Your task to perform on an android device: turn off smart reply in the gmail app Image 0: 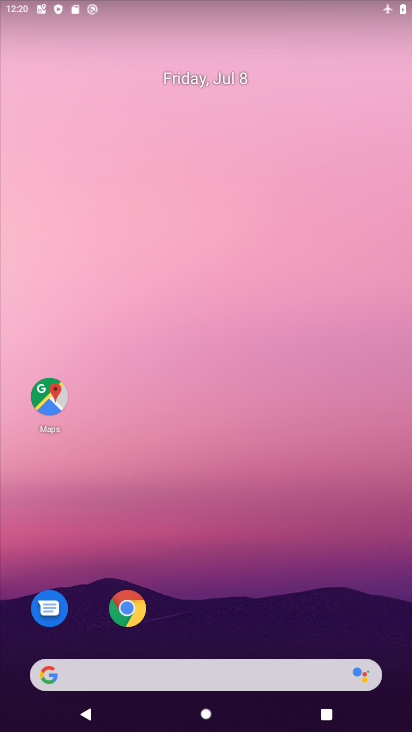
Step 0: drag from (334, 619) to (332, 13)
Your task to perform on an android device: turn off smart reply in the gmail app Image 1: 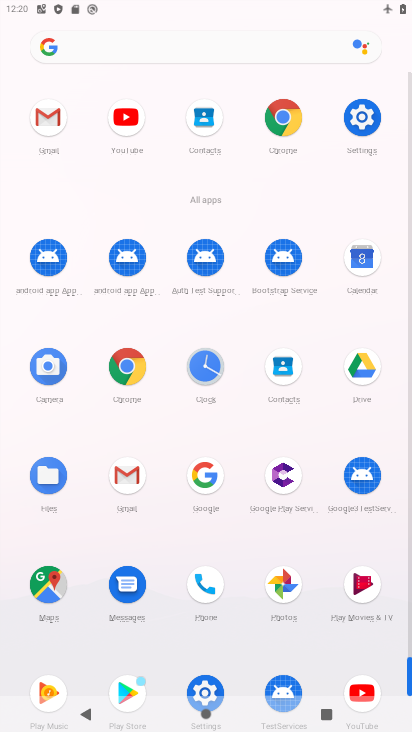
Step 1: click (67, 129)
Your task to perform on an android device: turn off smart reply in the gmail app Image 2: 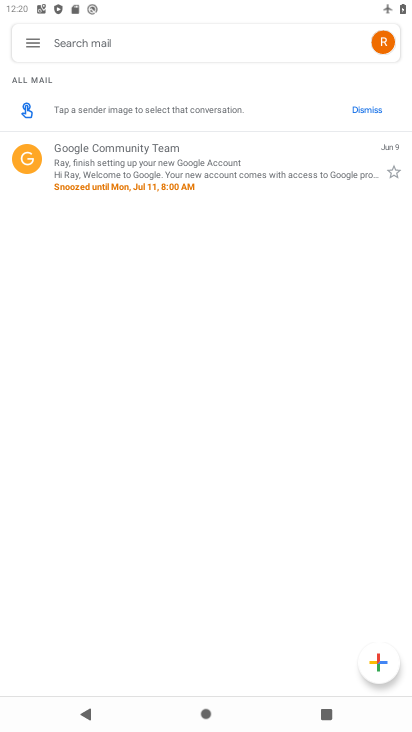
Step 2: click (29, 54)
Your task to perform on an android device: turn off smart reply in the gmail app Image 3: 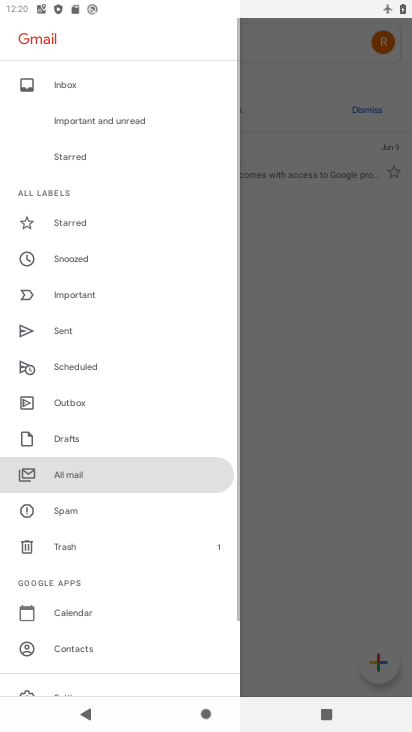
Step 3: drag from (72, 684) to (74, 266)
Your task to perform on an android device: turn off smart reply in the gmail app Image 4: 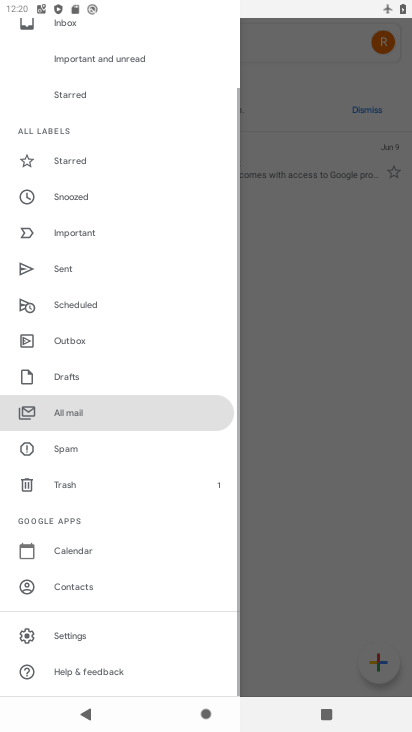
Step 4: click (65, 627)
Your task to perform on an android device: turn off smart reply in the gmail app Image 5: 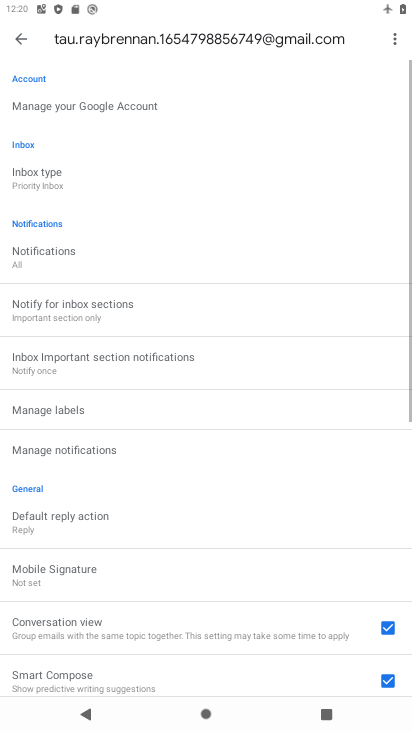
Step 5: drag from (194, 652) to (161, 307)
Your task to perform on an android device: turn off smart reply in the gmail app Image 6: 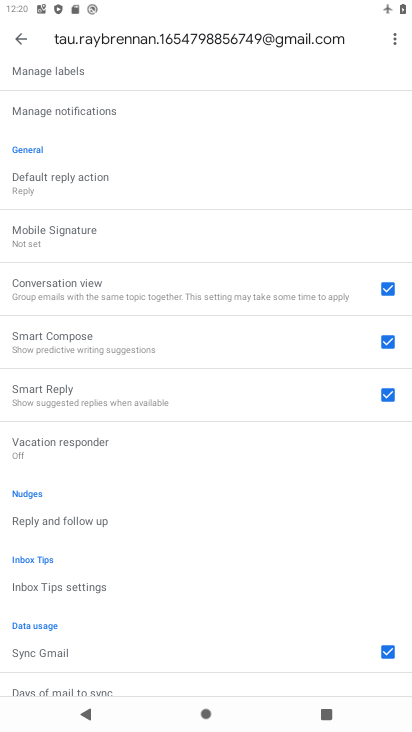
Step 6: click (86, 395)
Your task to perform on an android device: turn off smart reply in the gmail app Image 7: 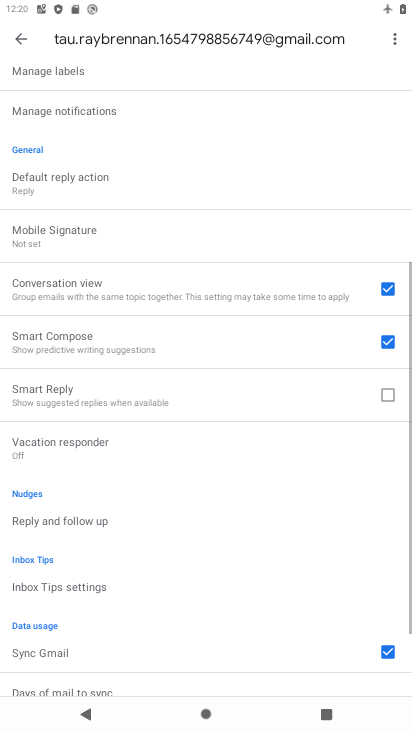
Step 7: task complete